Your task to perform on an android device: What's the weather today? Image 0: 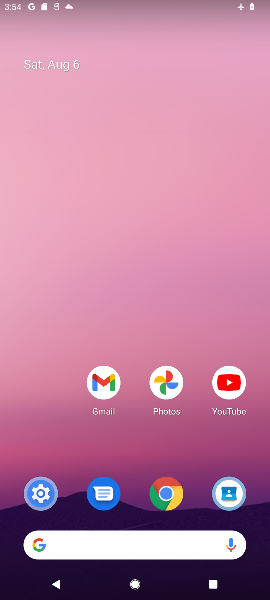
Step 0: drag from (131, 571) to (221, 82)
Your task to perform on an android device: What's the weather today? Image 1: 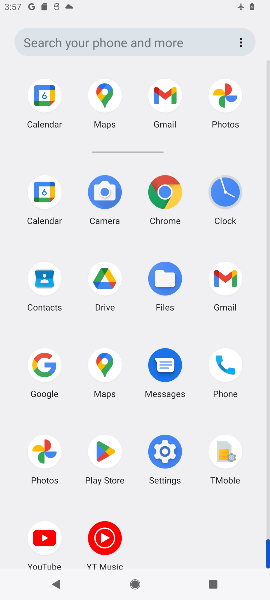
Step 1: click (151, 178)
Your task to perform on an android device: What's the weather today? Image 2: 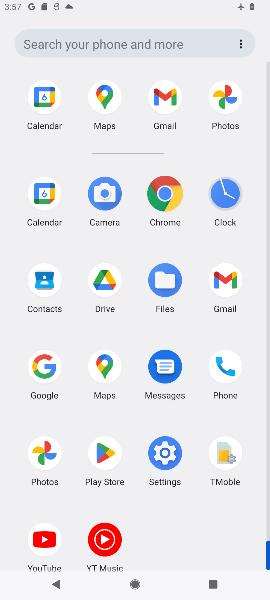
Step 2: click (152, 184)
Your task to perform on an android device: What's the weather today? Image 3: 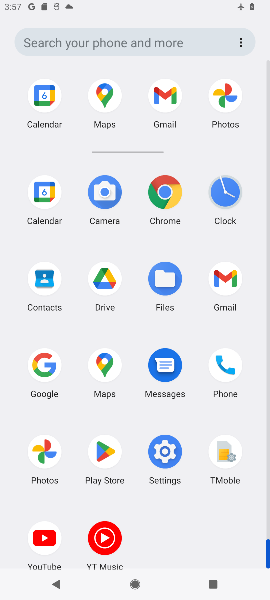
Step 3: click (152, 184)
Your task to perform on an android device: What's the weather today? Image 4: 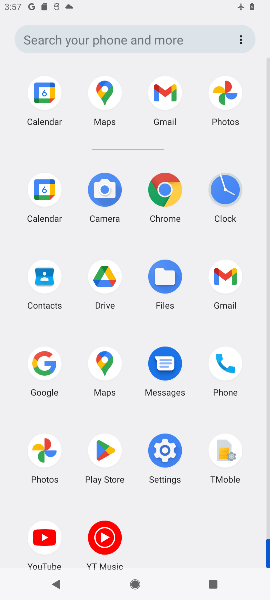
Step 4: click (157, 188)
Your task to perform on an android device: What's the weather today? Image 5: 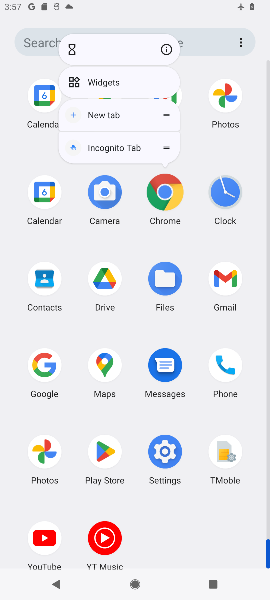
Step 5: click (157, 188)
Your task to perform on an android device: What's the weather today? Image 6: 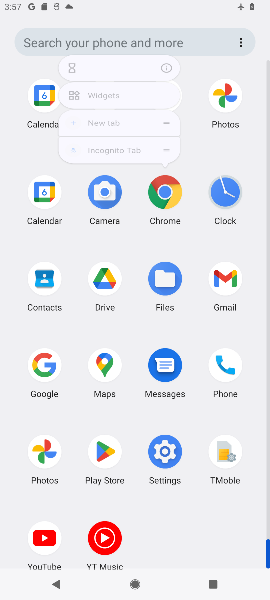
Step 6: click (157, 188)
Your task to perform on an android device: What's the weather today? Image 7: 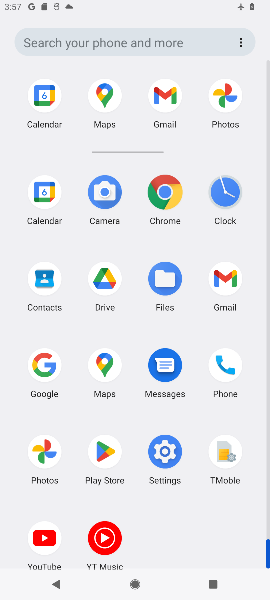
Step 7: click (161, 188)
Your task to perform on an android device: What's the weather today? Image 8: 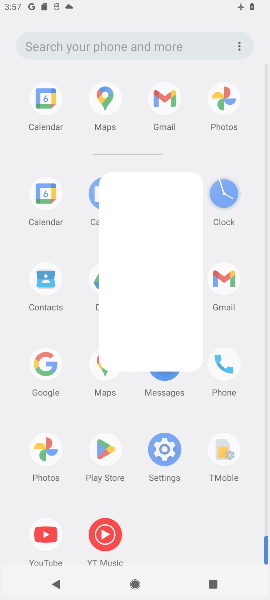
Step 8: click (161, 188)
Your task to perform on an android device: What's the weather today? Image 9: 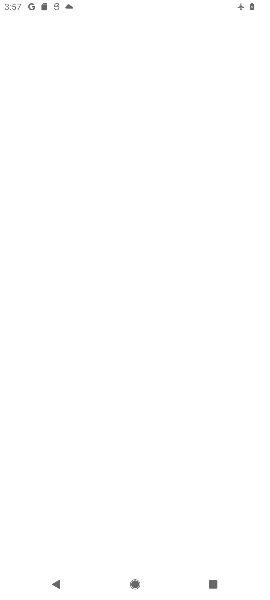
Step 9: click (158, 184)
Your task to perform on an android device: What's the weather today? Image 10: 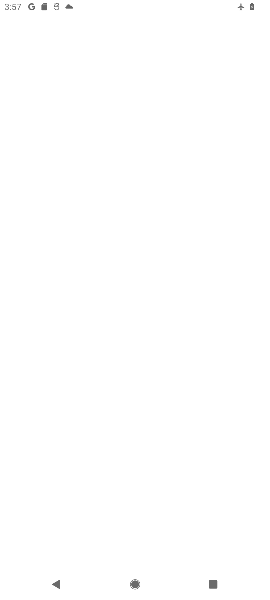
Step 10: click (158, 184)
Your task to perform on an android device: What's the weather today? Image 11: 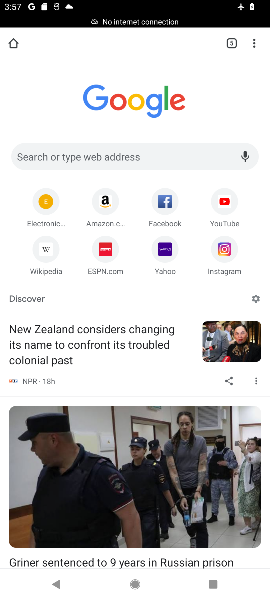
Step 11: click (65, 150)
Your task to perform on an android device: What's the weather today? Image 12: 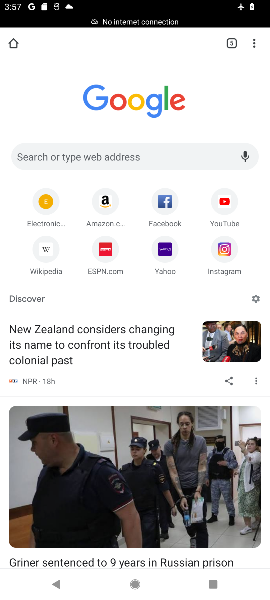
Step 12: click (65, 150)
Your task to perform on an android device: What's the weather today? Image 13: 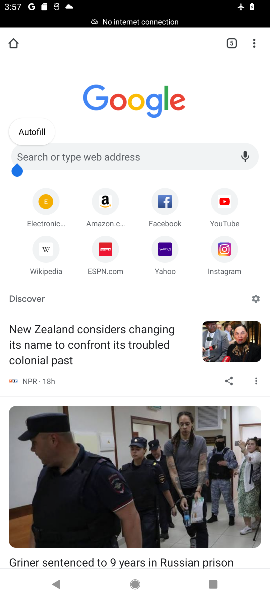
Step 13: click (65, 150)
Your task to perform on an android device: What's the weather today? Image 14: 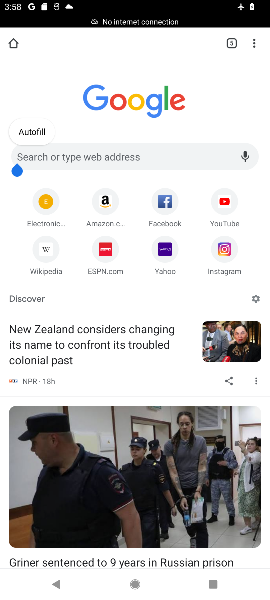
Step 14: click (21, 154)
Your task to perform on an android device: What's the weather today? Image 15: 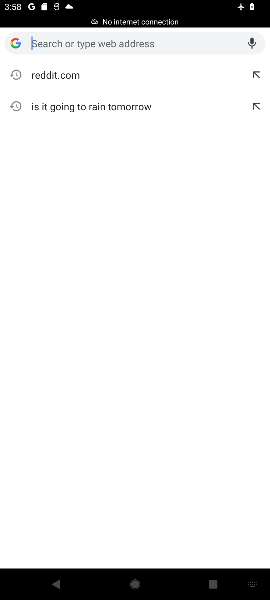
Step 15: type "weather for today?"
Your task to perform on an android device: What's the weather today? Image 16: 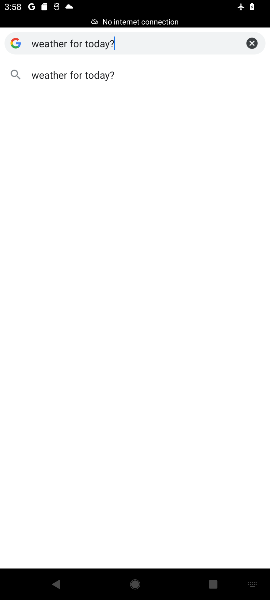
Step 16: click (63, 75)
Your task to perform on an android device: What's the weather today? Image 17: 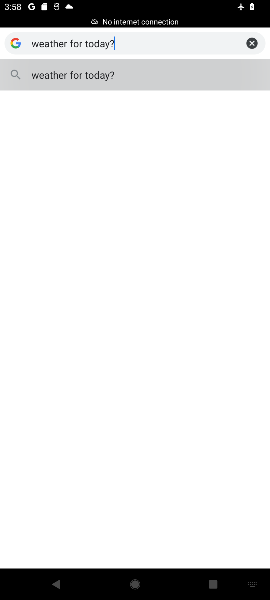
Step 17: click (66, 82)
Your task to perform on an android device: What's the weather today? Image 18: 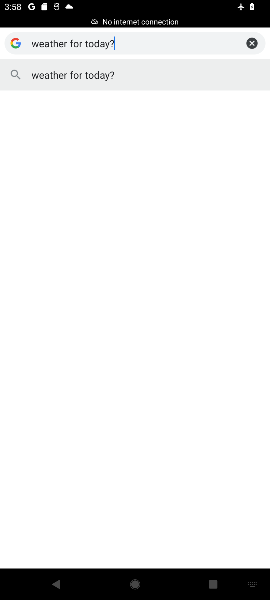
Step 18: click (66, 82)
Your task to perform on an android device: What's the weather today? Image 19: 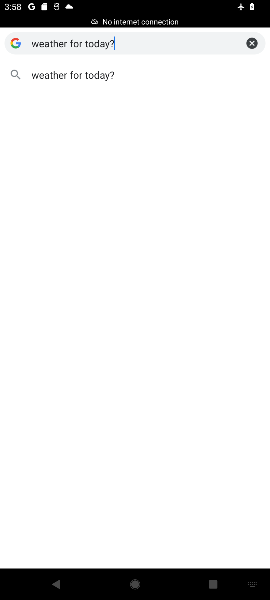
Step 19: click (66, 82)
Your task to perform on an android device: What's the weather today? Image 20: 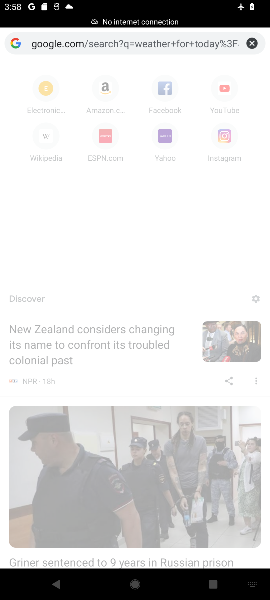
Step 20: click (77, 84)
Your task to perform on an android device: What's the weather today? Image 21: 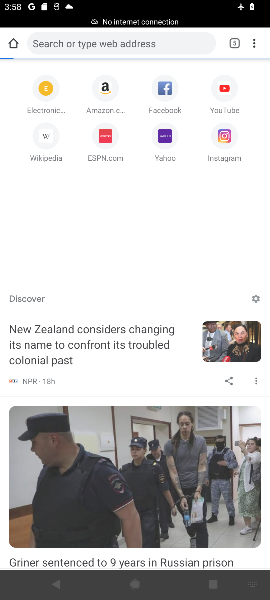
Step 21: click (77, 84)
Your task to perform on an android device: What's the weather today? Image 22: 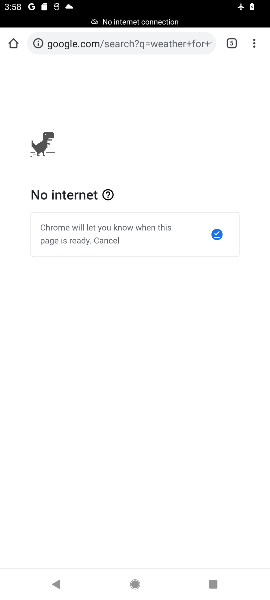
Step 22: task complete